Your task to perform on an android device: Go to Wikipedia Image 0: 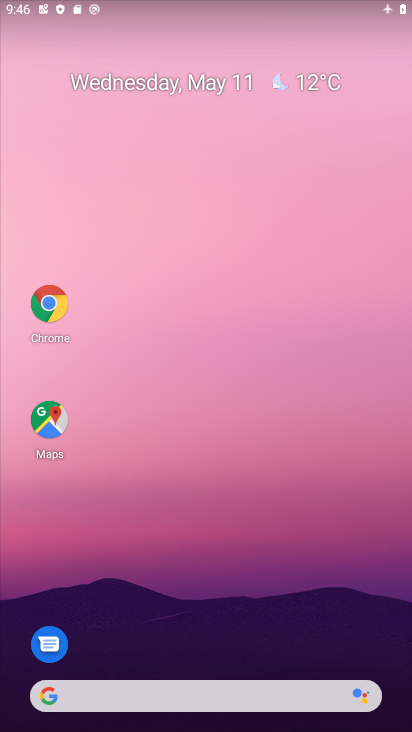
Step 0: click (57, 310)
Your task to perform on an android device: Go to Wikipedia Image 1: 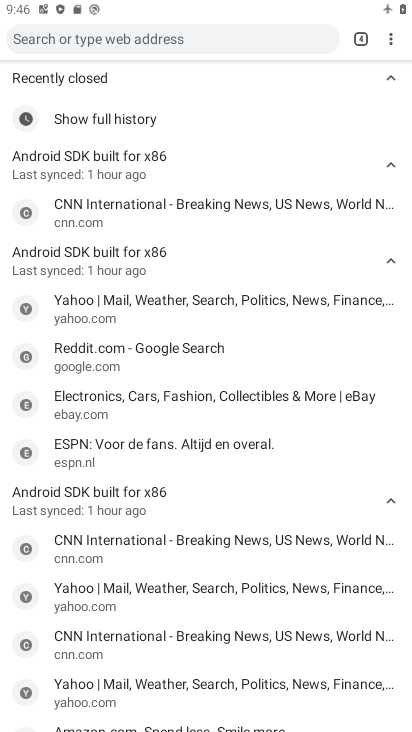
Step 1: click (365, 44)
Your task to perform on an android device: Go to Wikipedia Image 2: 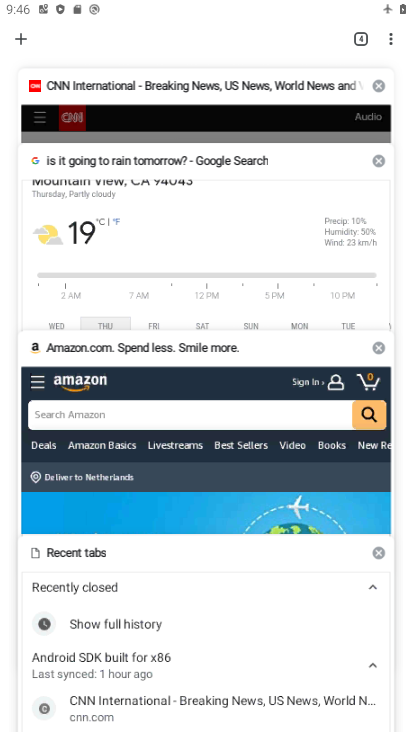
Step 2: press back button
Your task to perform on an android device: Go to Wikipedia Image 3: 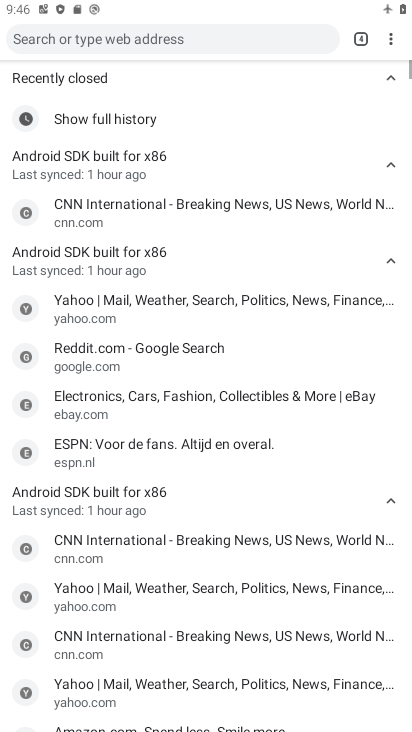
Step 3: press back button
Your task to perform on an android device: Go to Wikipedia Image 4: 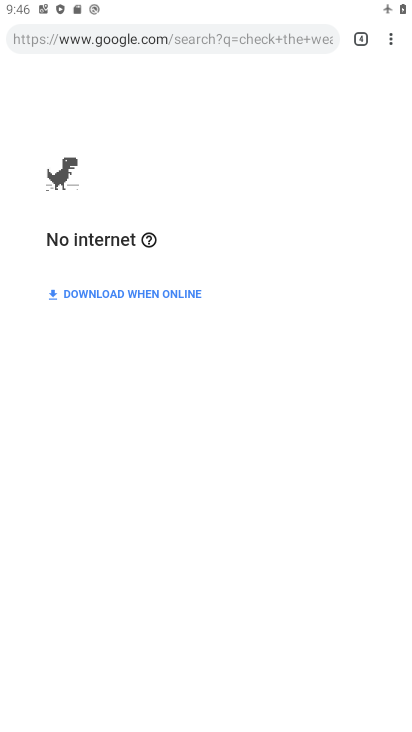
Step 4: press back button
Your task to perform on an android device: Go to Wikipedia Image 5: 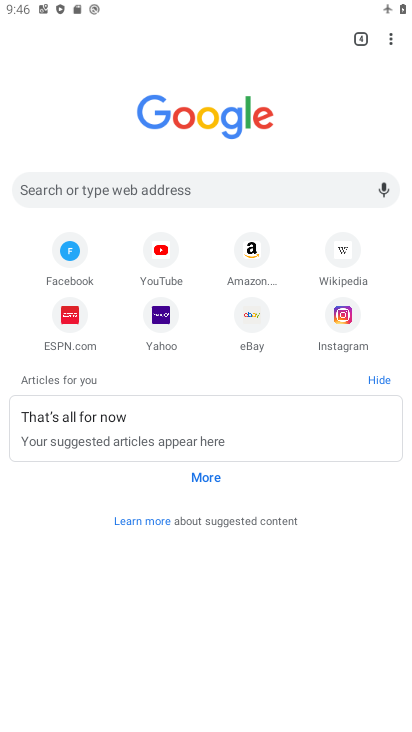
Step 5: click (337, 253)
Your task to perform on an android device: Go to Wikipedia Image 6: 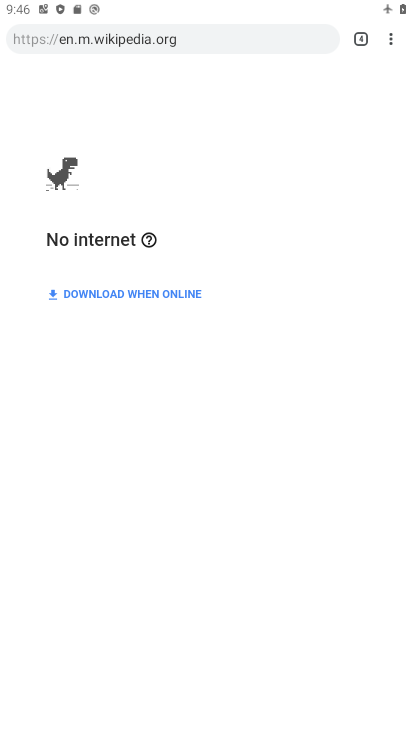
Step 6: task complete